Your task to perform on an android device: Open wifi settings Image 0: 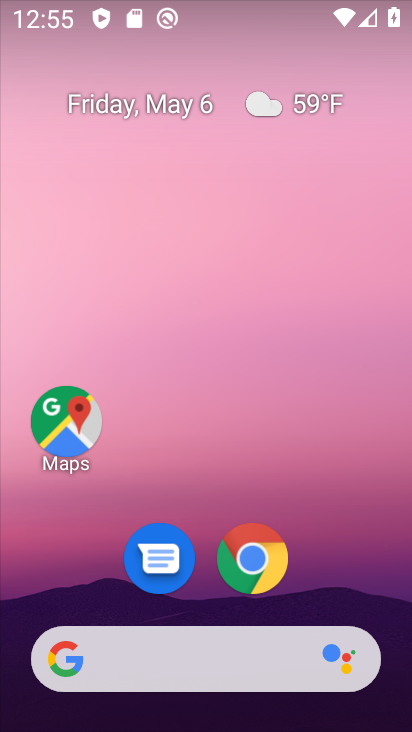
Step 0: drag from (214, 723) to (192, 82)
Your task to perform on an android device: Open wifi settings Image 1: 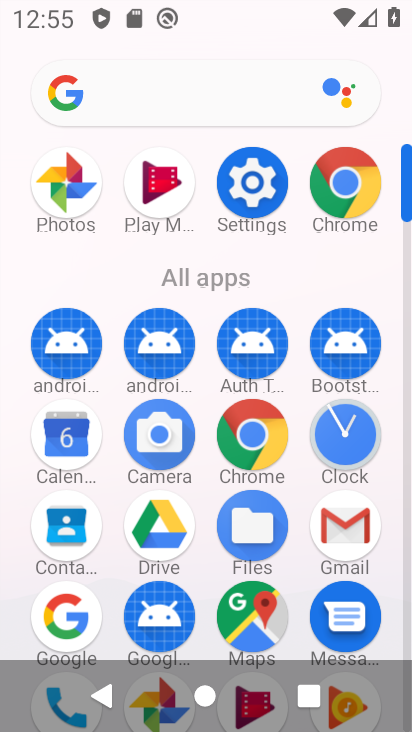
Step 1: click (251, 192)
Your task to perform on an android device: Open wifi settings Image 2: 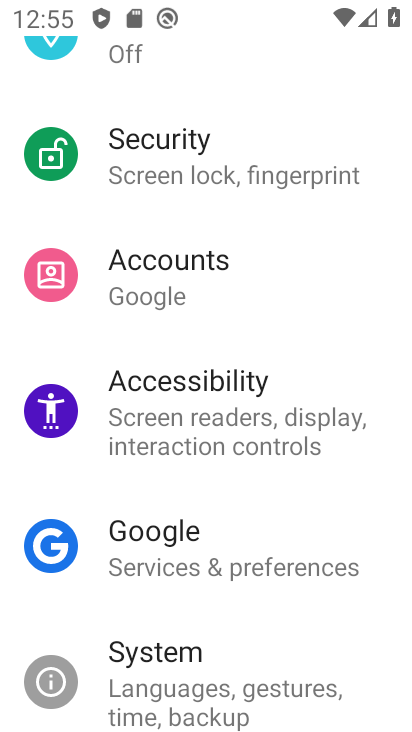
Step 2: drag from (191, 116) to (188, 544)
Your task to perform on an android device: Open wifi settings Image 3: 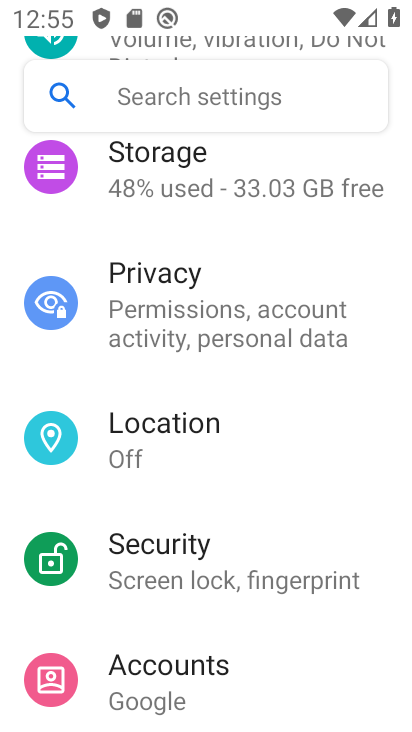
Step 3: drag from (195, 212) to (189, 624)
Your task to perform on an android device: Open wifi settings Image 4: 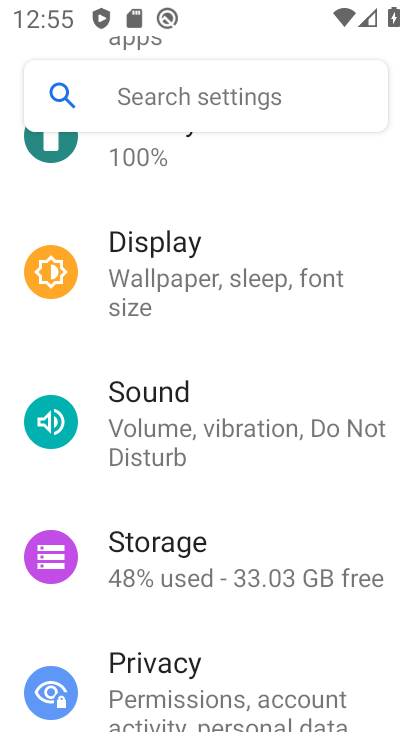
Step 4: drag from (200, 191) to (195, 623)
Your task to perform on an android device: Open wifi settings Image 5: 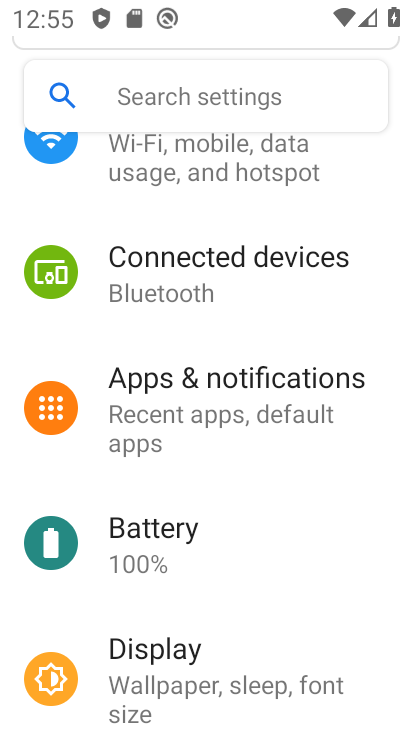
Step 5: drag from (179, 152) to (164, 499)
Your task to perform on an android device: Open wifi settings Image 6: 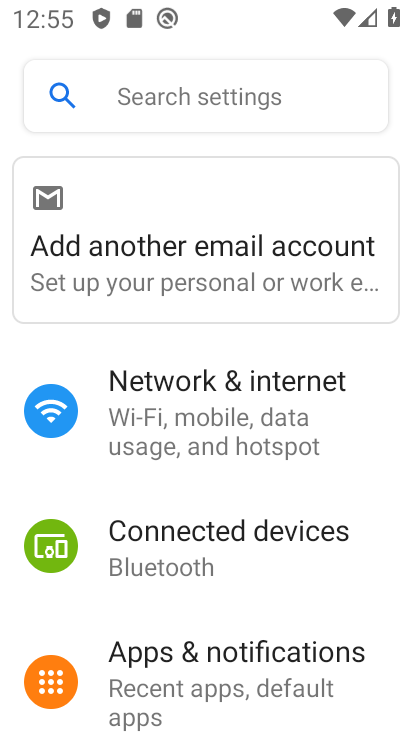
Step 6: click (187, 423)
Your task to perform on an android device: Open wifi settings Image 7: 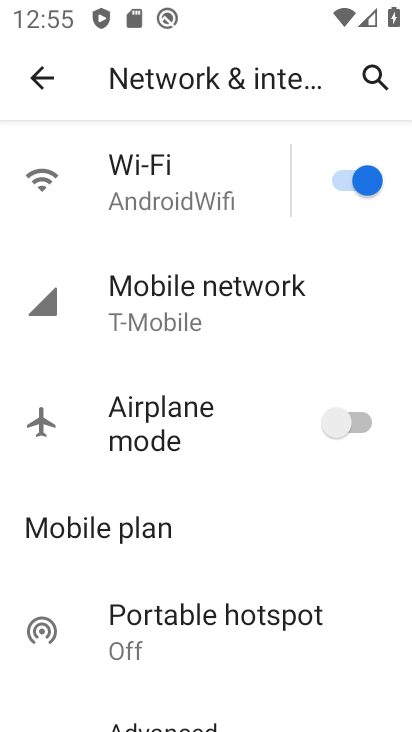
Step 7: click (147, 199)
Your task to perform on an android device: Open wifi settings Image 8: 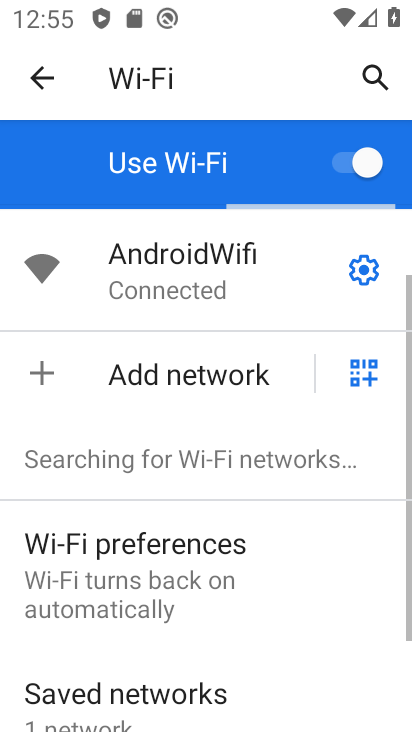
Step 8: task complete